Your task to perform on an android device: turn vacation reply on in the gmail app Image 0: 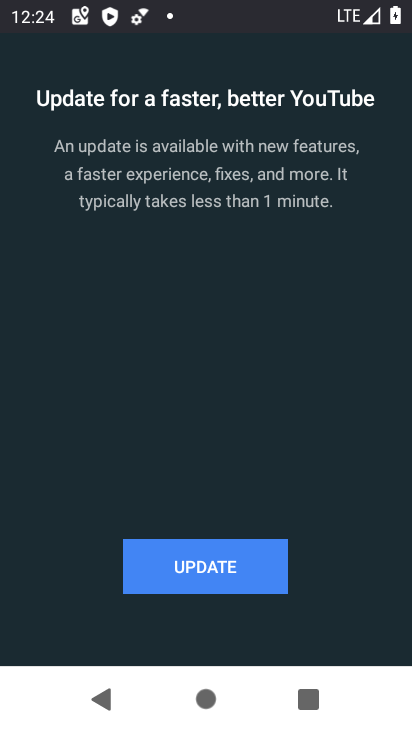
Step 0: press home button
Your task to perform on an android device: turn vacation reply on in the gmail app Image 1: 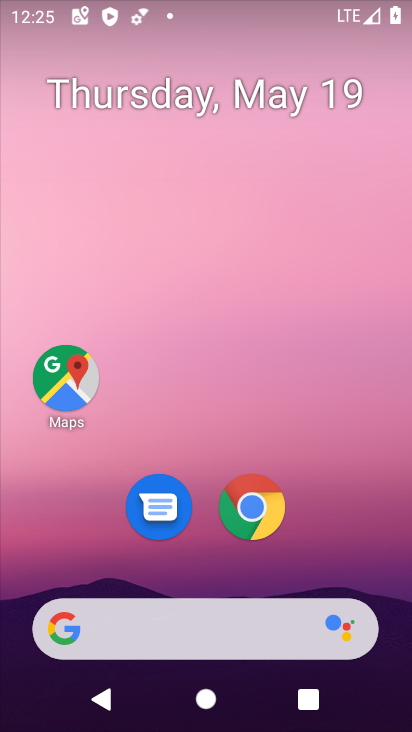
Step 1: drag from (235, 572) to (258, 38)
Your task to perform on an android device: turn vacation reply on in the gmail app Image 2: 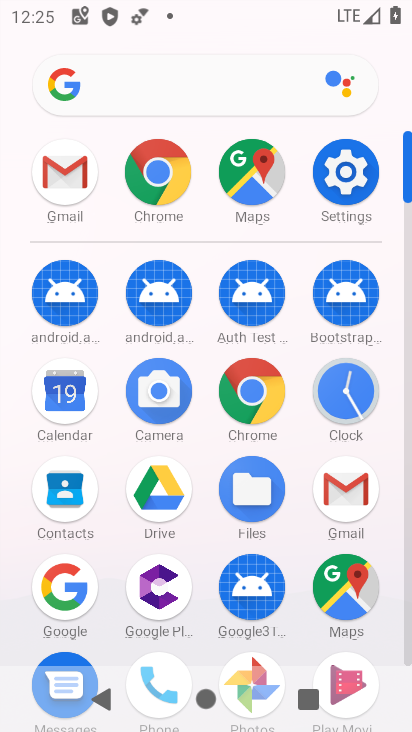
Step 2: click (343, 505)
Your task to perform on an android device: turn vacation reply on in the gmail app Image 3: 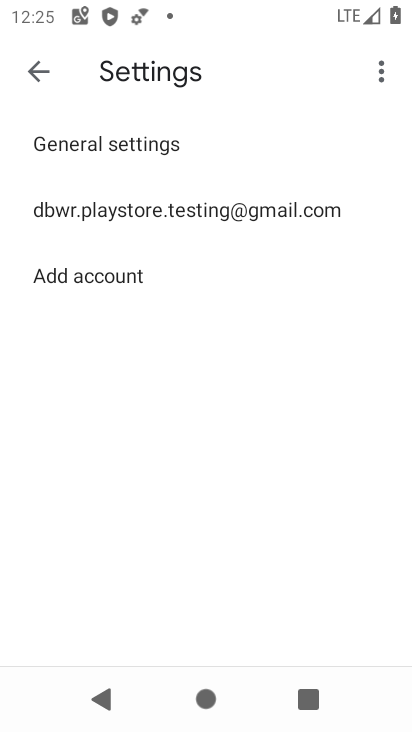
Step 3: click (163, 210)
Your task to perform on an android device: turn vacation reply on in the gmail app Image 4: 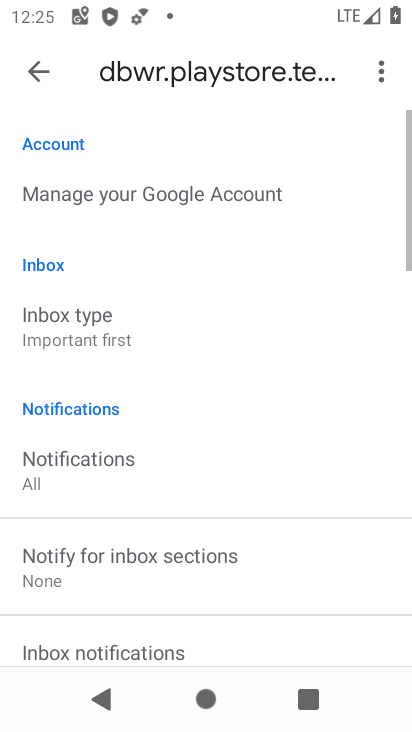
Step 4: drag from (190, 559) to (224, 227)
Your task to perform on an android device: turn vacation reply on in the gmail app Image 5: 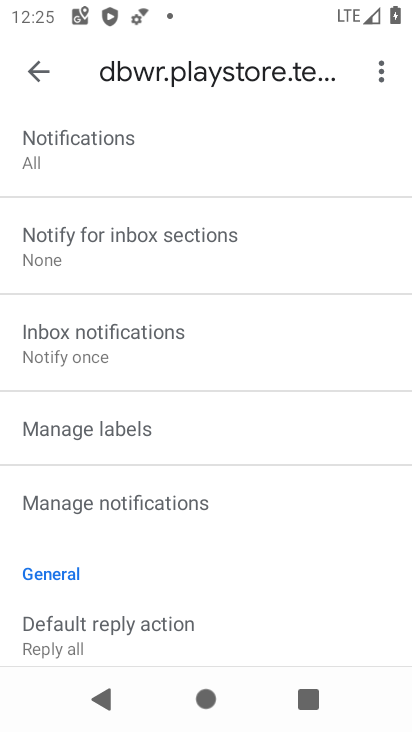
Step 5: drag from (199, 540) to (237, 323)
Your task to perform on an android device: turn vacation reply on in the gmail app Image 6: 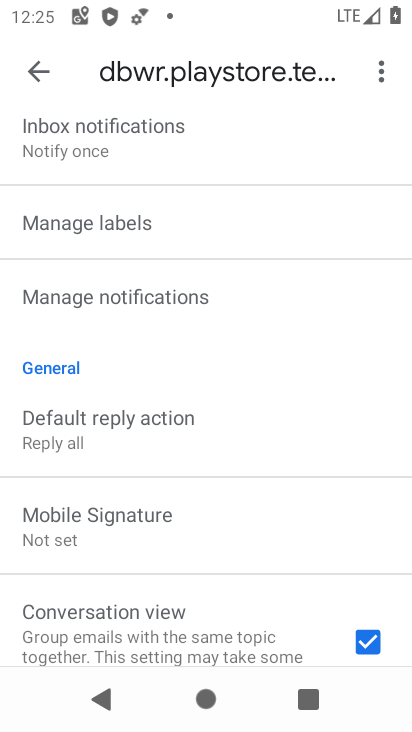
Step 6: drag from (207, 506) to (211, 316)
Your task to perform on an android device: turn vacation reply on in the gmail app Image 7: 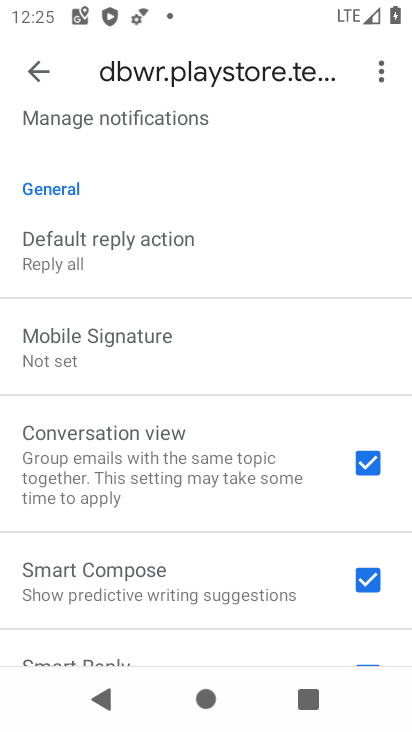
Step 7: drag from (171, 552) to (210, 253)
Your task to perform on an android device: turn vacation reply on in the gmail app Image 8: 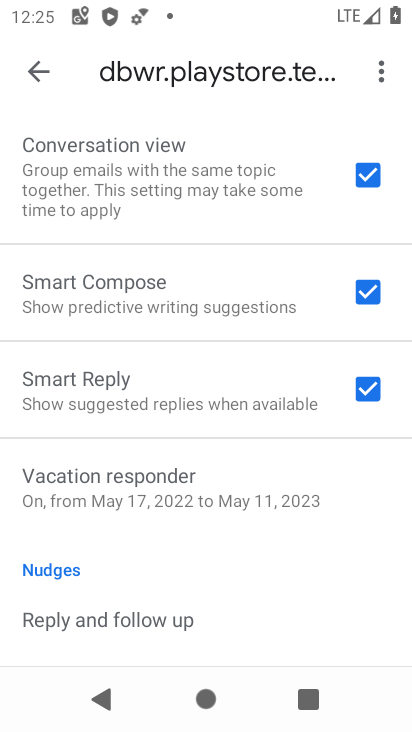
Step 8: click (202, 500)
Your task to perform on an android device: turn vacation reply on in the gmail app Image 9: 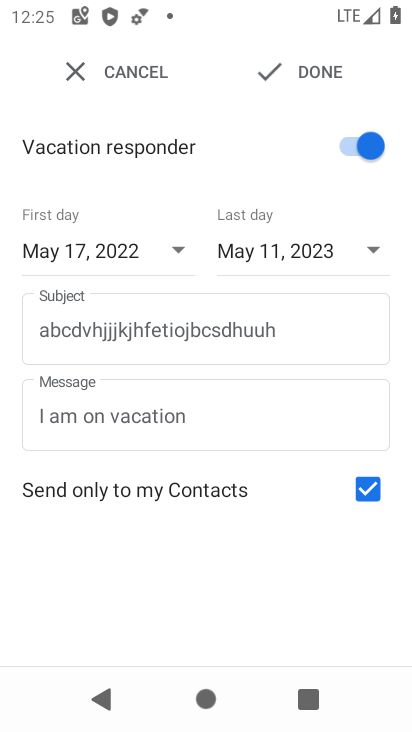
Step 9: task complete